Your task to perform on an android device: Play the last video I watched on Youtube Image 0: 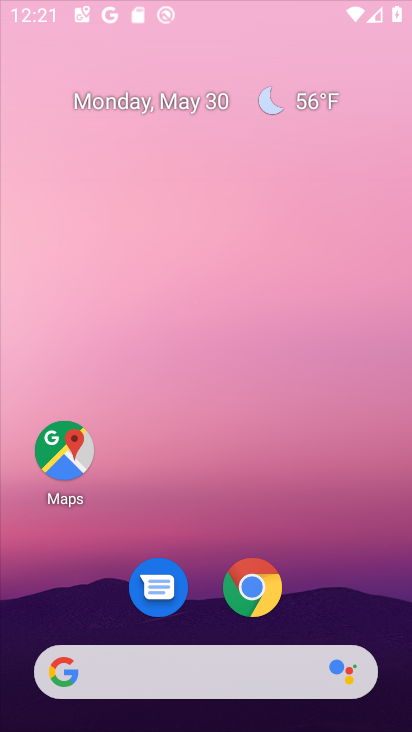
Step 0: click (277, 201)
Your task to perform on an android device: Play the last video I watched on Youtube Image 1: 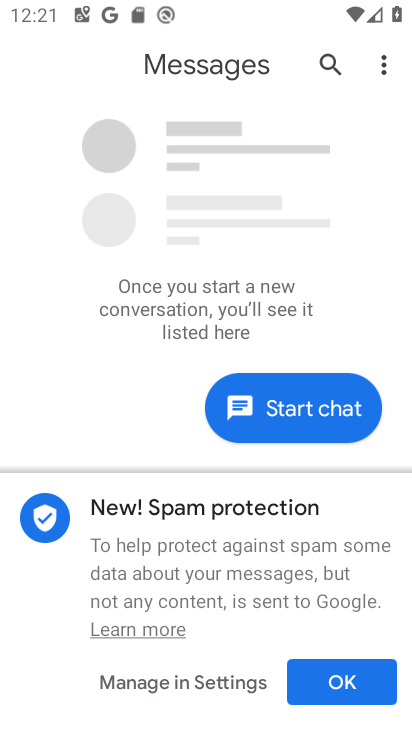
Step 1: press home button
Your task to perform on an android device: Play the last video I watched on Youtube Image 2: 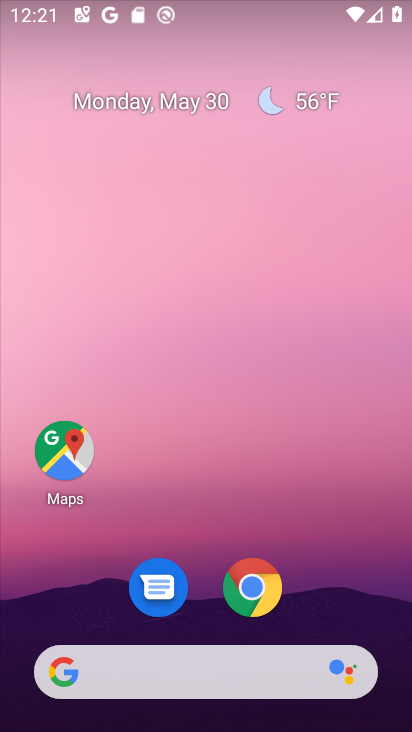
Step 2: drag from (362, 620) to (308, 299)
Your task to perform on an android device: Play the last video I watched on Youtube Image 3: 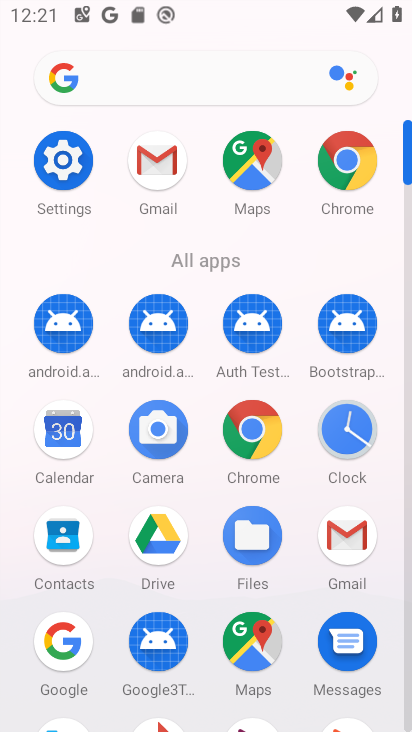
Step 3: click (409, 724)
Your task to perform on an android device: Play the last video I watched on Youtube Image 4: 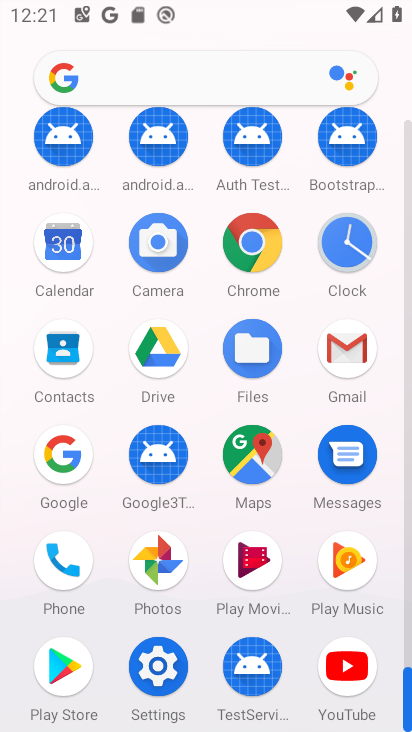
Step 4: click (337, 680)
Your task to perform on an android device: Play the last video I watched on Youtube Image 5: 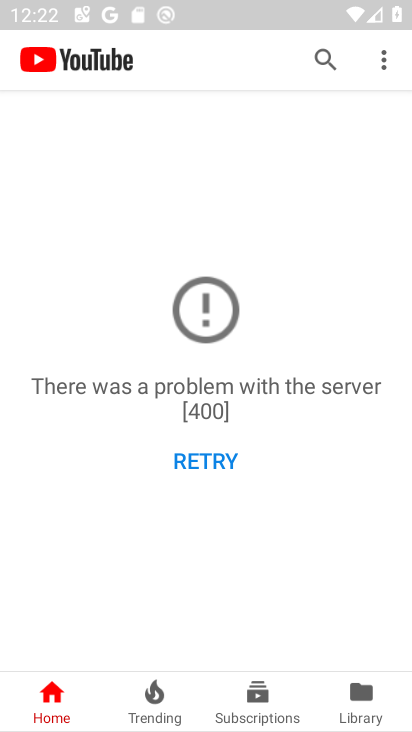
Step 5: click (369, 692)
Your task to perform on an android device: Play the last video I watched on Youtube Image 6: 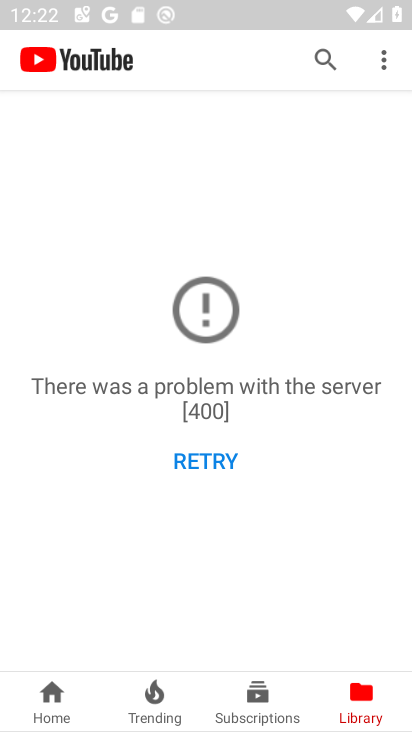
Step 6: task complete